Your task to perform on an android device: Go to calendar. Show me events next week Image 0: 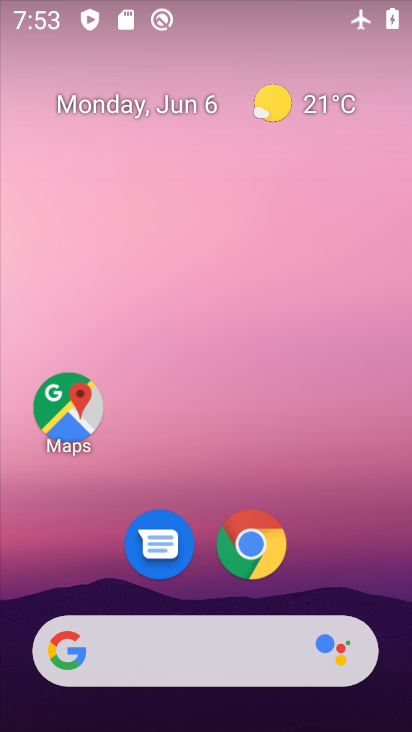
Step 0: drag from (284, 585) to (287, 168)
Your task to perform on an android device: Go to calendar. Show me events next week Image 1: 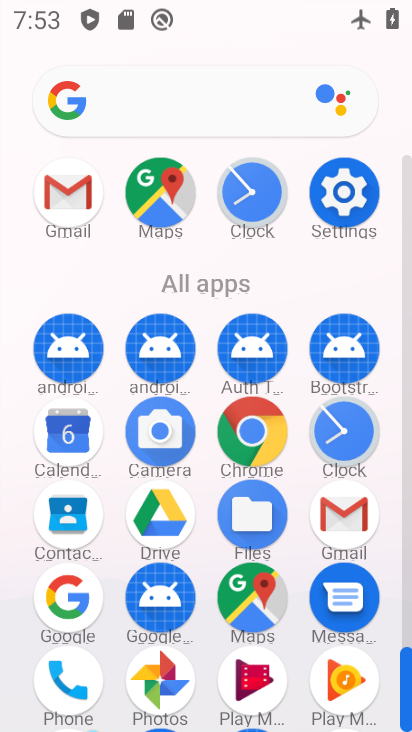
Step 1: click (65, 436)
Your task to perform on an android device: Go to calendar. Show me events next week Image 2: 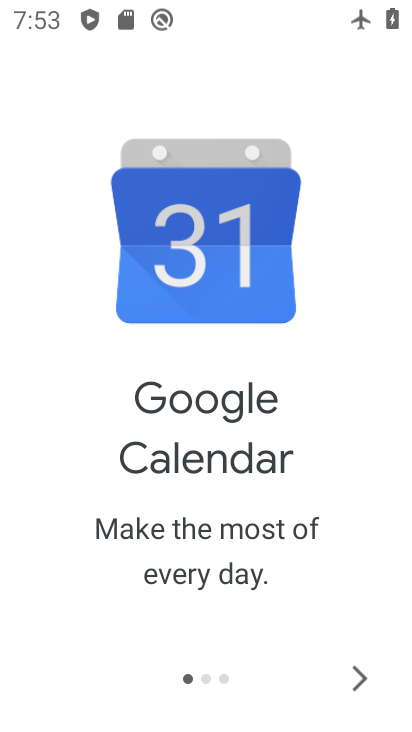
Step 2: click (347, 688)
Your task to perform on an android device: Go to calendar. Show me events next week Image 3: 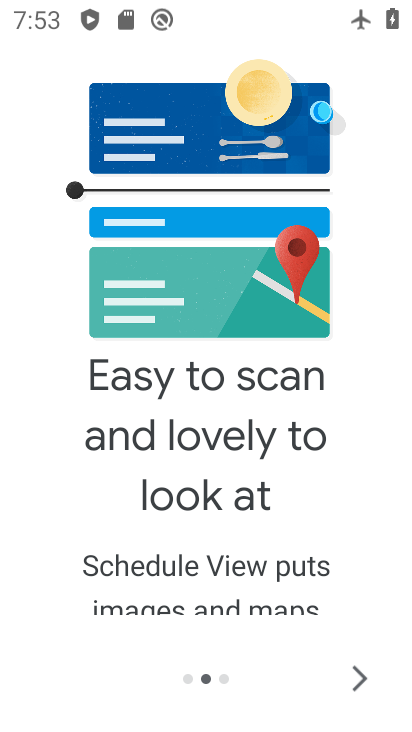
Step 3: click (347, 688)
Your task to perform on an android device: Go to calendar. Show me events next week Image 4: 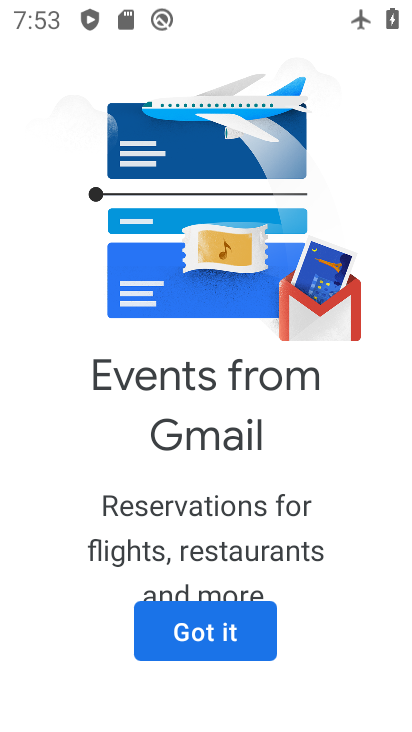
Step 4: click (347, 688)
Your task to perform on an android device: Go to calendar. Show me events next week Image 5: 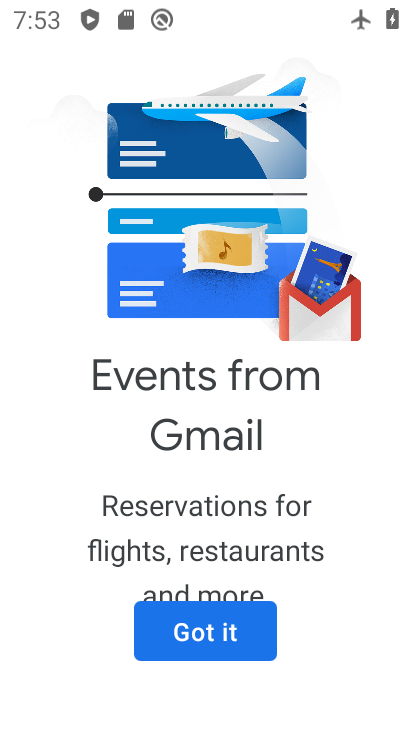
Step 5: click (226, 616)
Your task to perform on an android device: Go to calendar. Show me events next week Image 6: 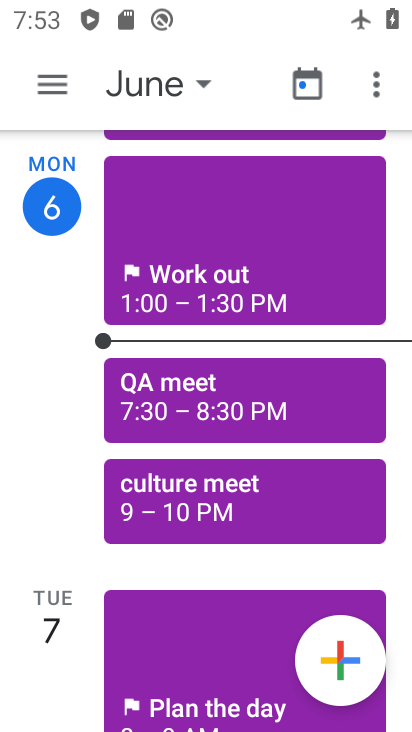
Step 6: click (42, 92)
Your task to perform on an android device: Go to calendar. Show me events next week Image 7: 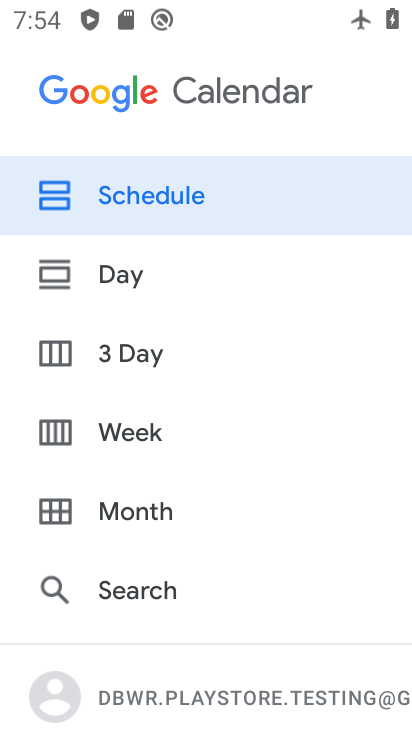
Step 7: click (139, 501)
Your task to perform on an android device: Go to calendar. Show me events next week Image 8: 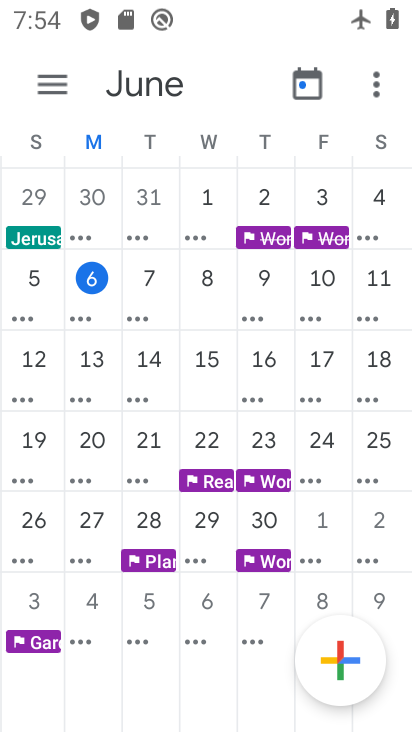
Step 8: click (51, 83)
Your task to perform on an android device: Go to calendar. Show me events next week Image 9: 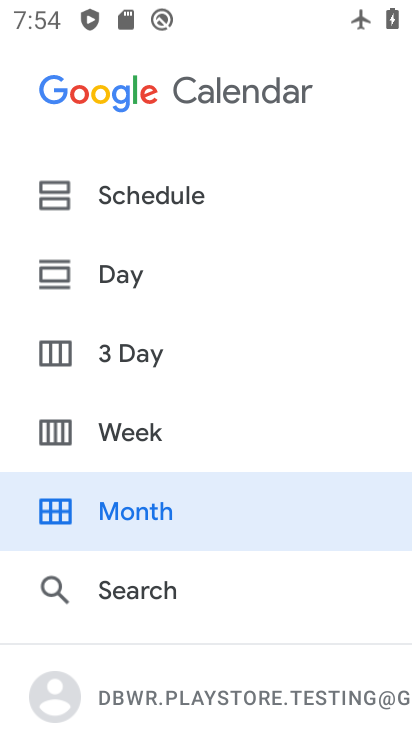
Step 9: click (162, 424)
Your task to perform on an android device: Go to calendar. Show me events next week Image 10: 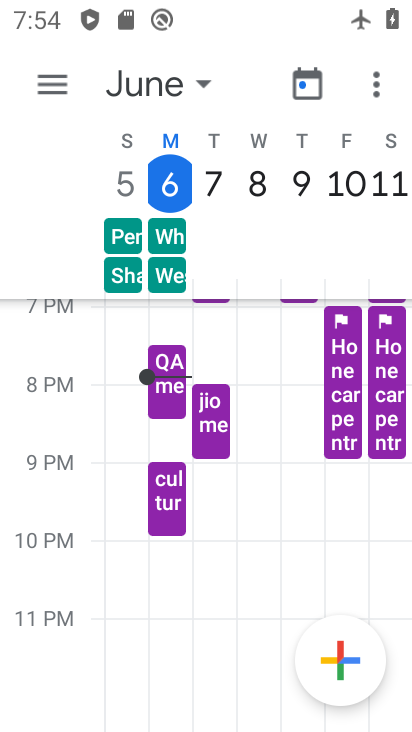
Step 10: task complete